Your task to perform on an android device: turn on priority inbox in the gmail app Image 0: 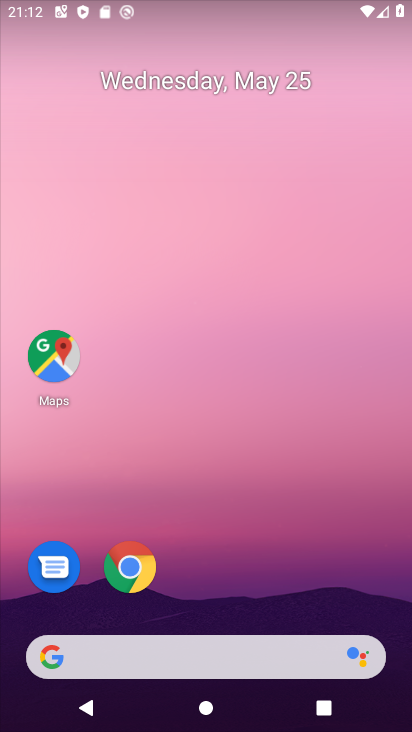
Step 0: drag from (235, 564) to (274, 59)
Your task to perform on an android device: turn on priority inbox in the gmail app Image 1: 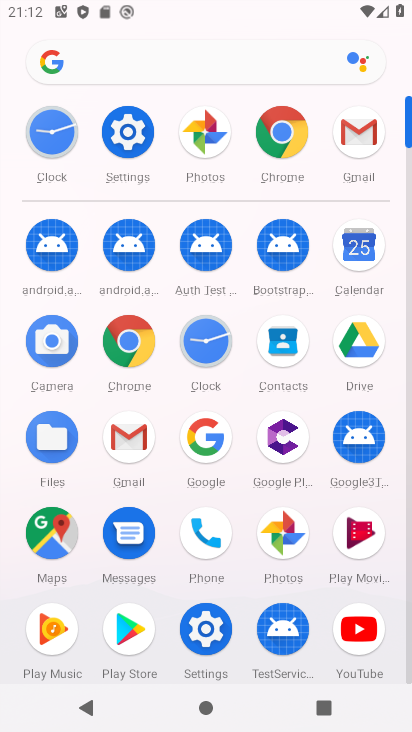
Step 1: click (344, 117)
Your task to perform on an android device: turn on priority inbox in the gmail app Image 2: 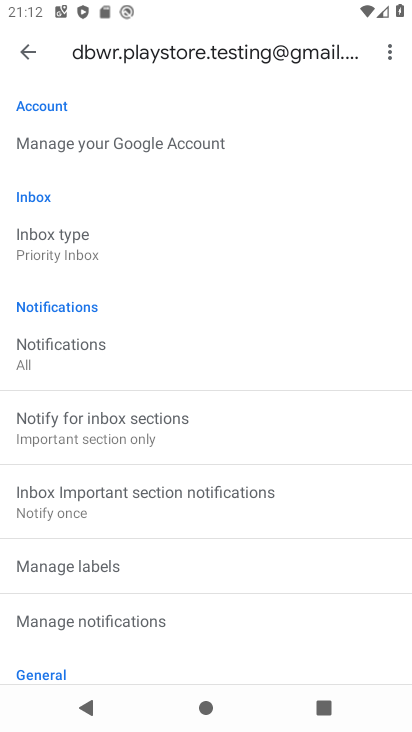
Step 2: task complete